Your task to perform on an android device: Go to battery settings Image 0: 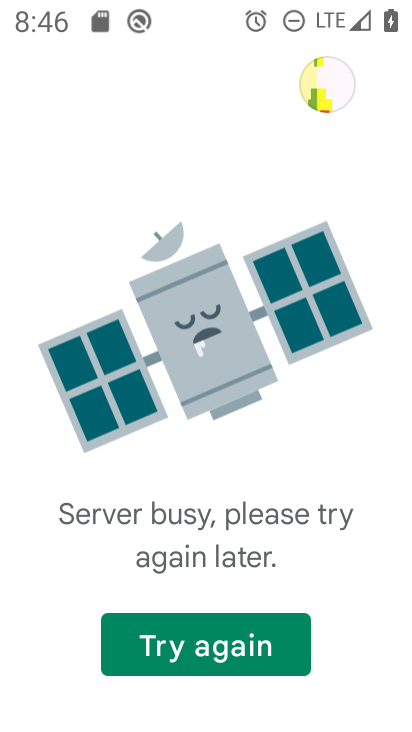
Step 0: press home button
Your task to perform on an android device: Go to battery settings Image 1: 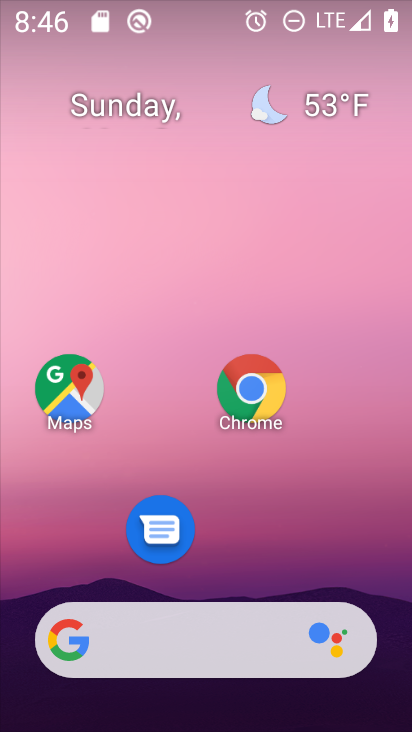
Step 1: drag from (269, 560) to (318, 56)
Your task to perform on an android device: Go to battery settings Image 2: 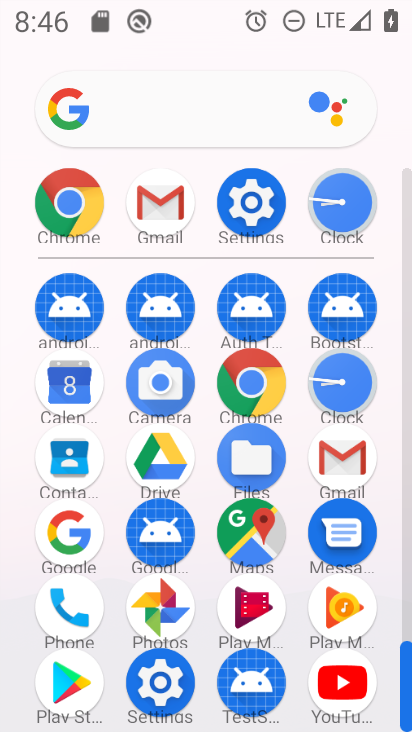
Step 2: click (257, 200)
Your task to perform on an android device: Go to battery settings Image 3: 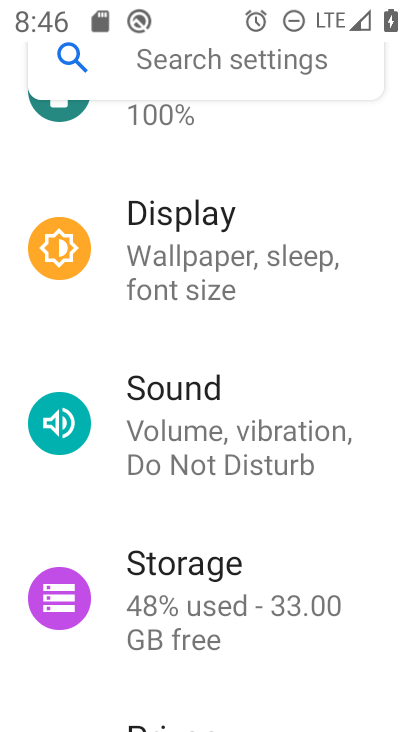
Step 3: click (196, 491)
Your task to perform on an android device: Go to battery settings Image 4: 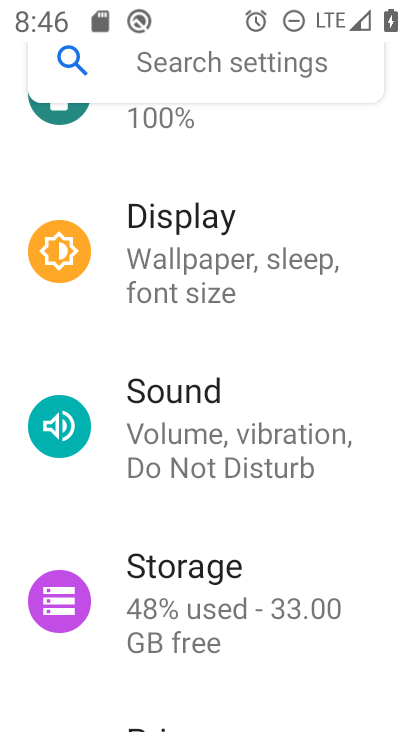
Step 4: click (168, 121)
Your task to perform on an android device: Go to battery settings Image 5: 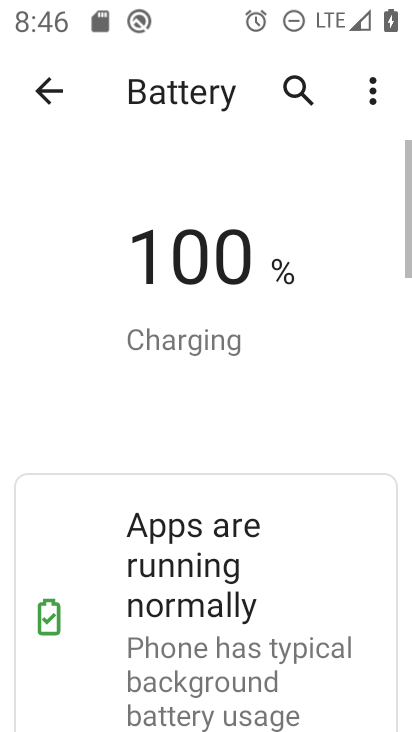
Step 5: task complete